Your task to perform on an android device: Open settings on Google Maps Image 0: 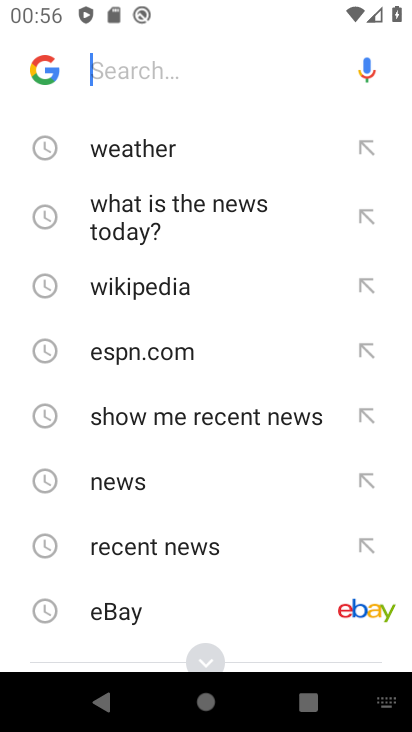
Step 0: press back button
Your task to perform on an android device: Open settings on Google Maps Image 1: 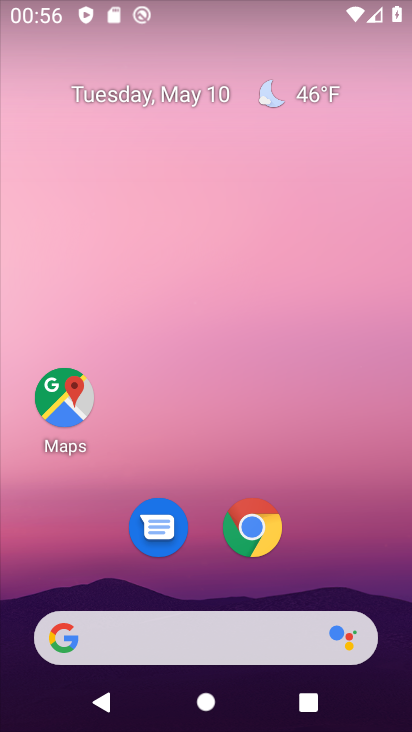
Step 1: click (66, 401)
Your task to perform on an android device: Open settings on Google Maps Image 2: 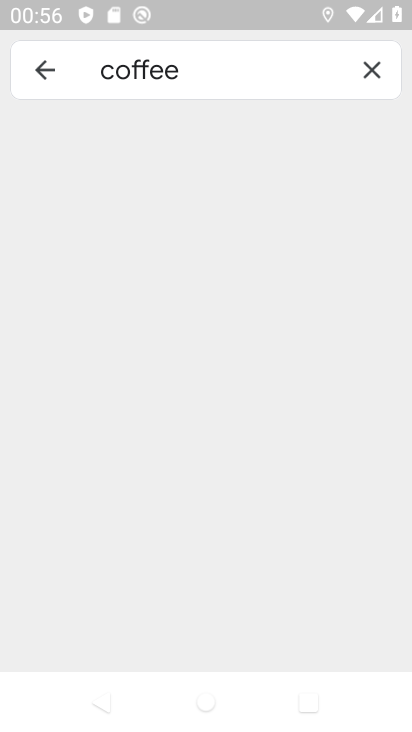
Step 2: press back button
Your task to perform on an android device: Open settings on Google Maps Image 3: 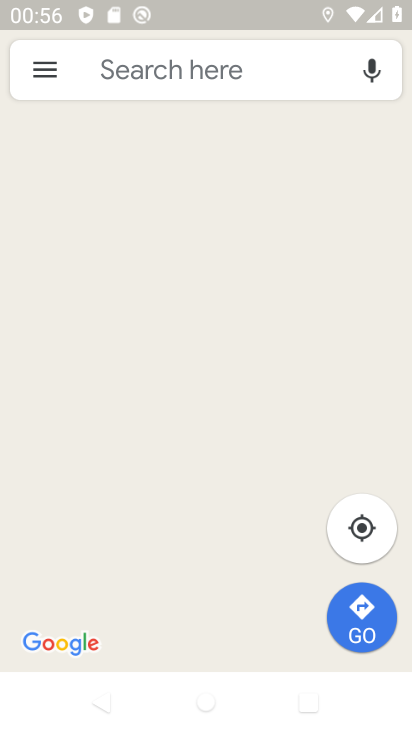
Step 3: click (46, 77)
Your task to perform on an android device: Open settings on Google Maps Image 4: 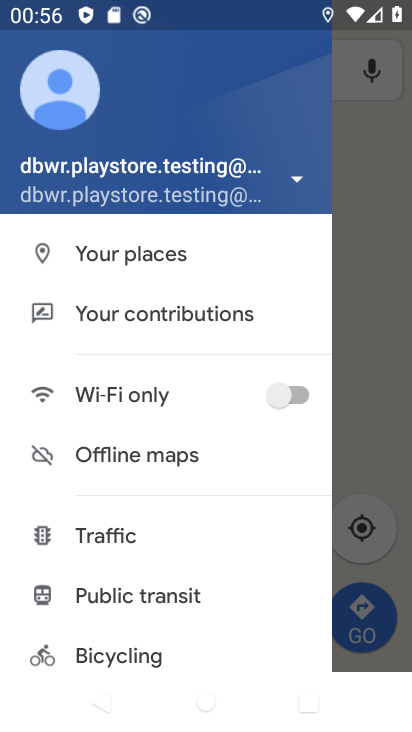
Step 4: drag from (143, 636) to (205, 186)
Your task to perform on an android device: Open settings on Google Maps Image 5: 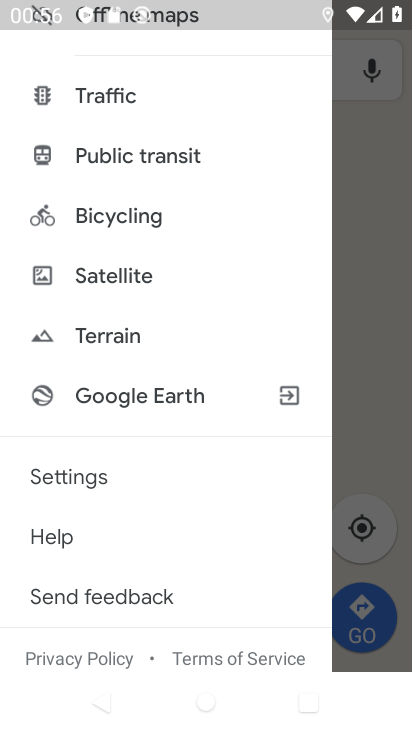
Step 5: click (73, 475)
Your task to perform on an android device: Open settings on Google Maps Image 6: 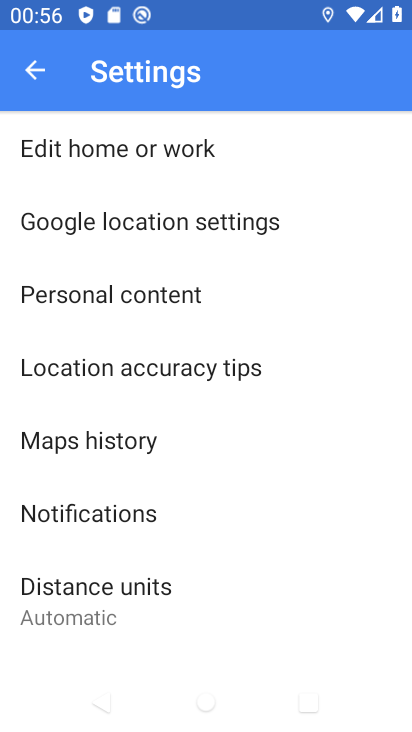
Step 6: task complete